Your task to perform on an android device: open a new tab in the chrome app Image 0: 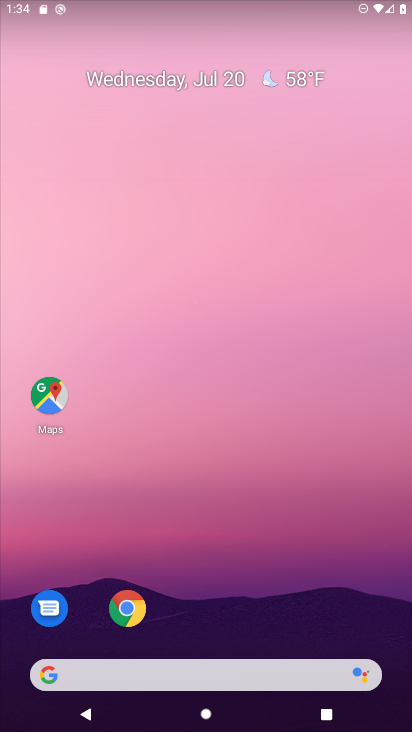
Step 0: drag from (234, 708) to (232, 187)
Your task to perform on an android device: open a new tab in the chrome app Image 1: 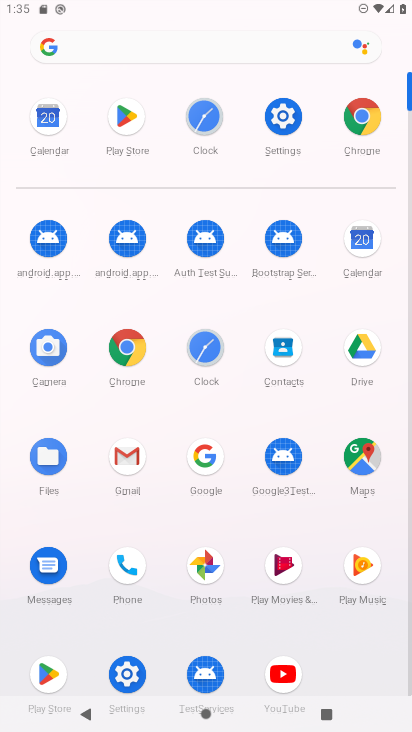
Step 1: click (127, 355)
Your task to perform on an android device: open a new tab in the chrome app Image 2: 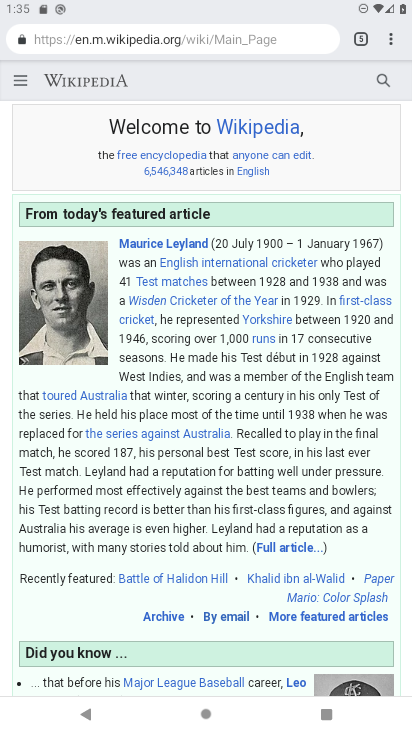
Step 2: click (389, 40)
Your task to perform on an android device: open a new tab in the chrome app Image 3: 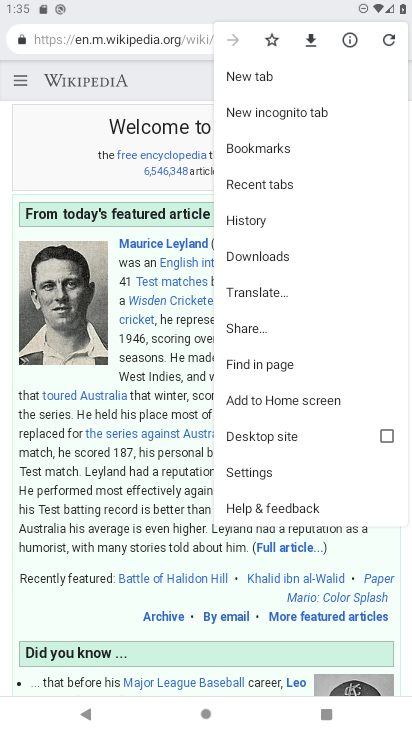
Step 3: click (249, 77)
Your task to perform on an android device: open a new tab in the chrome app Image 4: 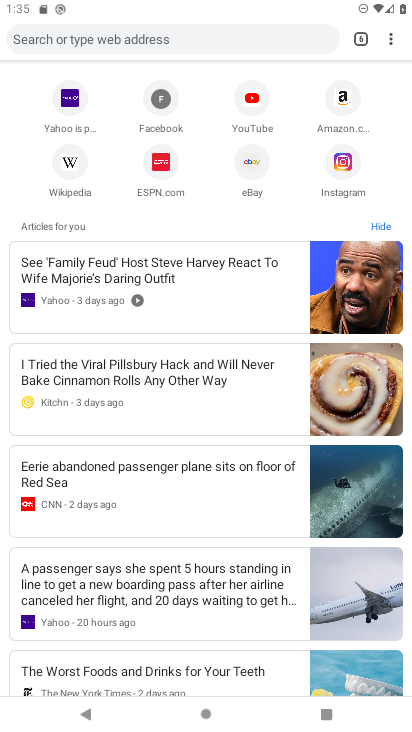
Step 4: task complete